Your task to perform on an android device: Open Youtube and go to the subscriptions tab Image 0: 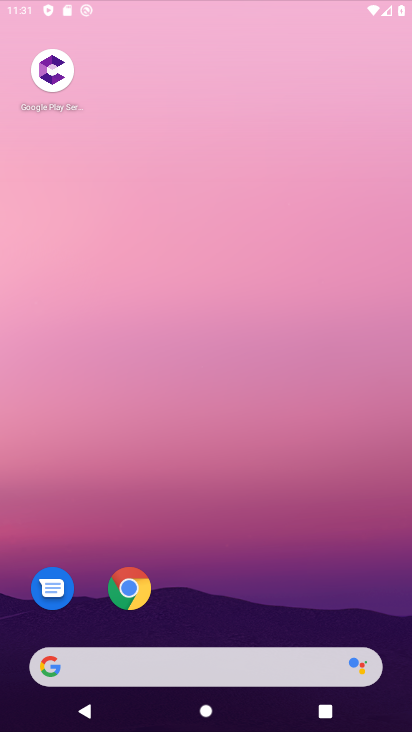
Step 0: click (262, 208)
Your task to perform on an android device: Open Youtube and go to the subscriptions tab Image 1: 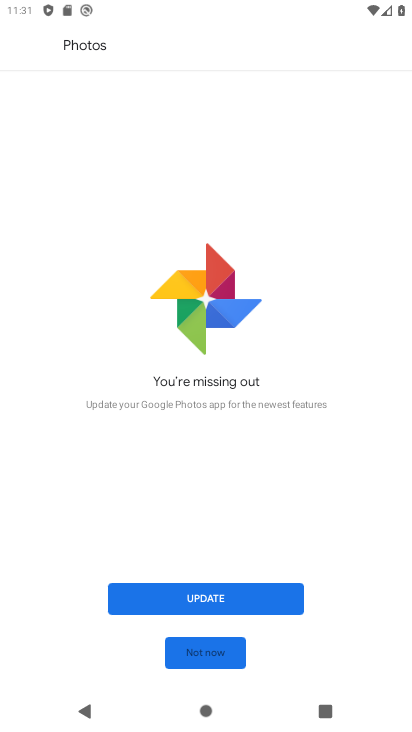
Step 1: press home button
Your task to perform on an android device: Open Youtube and go to the subscriptions tab Image 2: 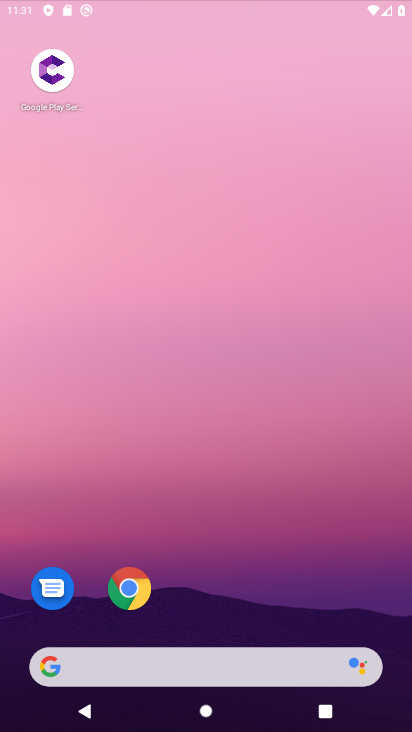
Step 2: drag from (323, 573) to (302, 132)
Your task to perform on an android device: Open Youtube and go to the subscriptions tab Image 3: 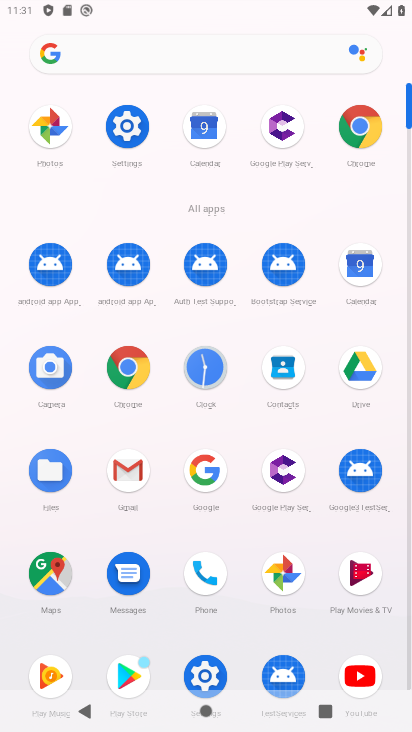
Step 3: click (351, 679)
Your task to perform on an android device: Open Youtube and go to the subscriptions tab Image 4: 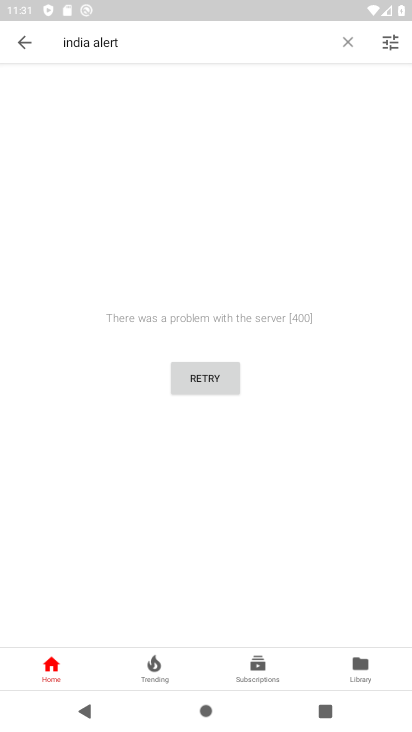
Step 4: click (239, 669)
Your task to perform on an android device: Open Youtube and go to the subscriptions tab Image 5: 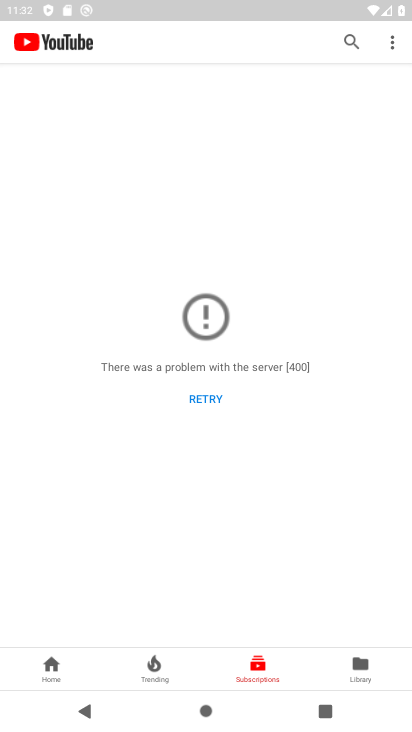
Step 5: task complete